Your task to perform on an android device: Open Yahoo.com Image 0: 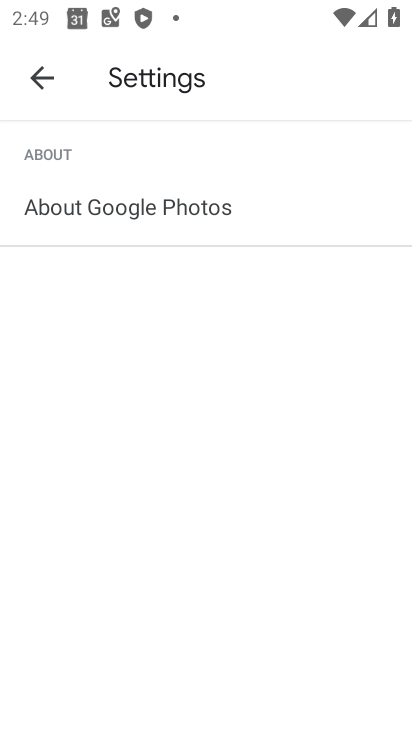
Step 0: press home button
Your task to perform on an android device: Open Yahoo.com Image 1: 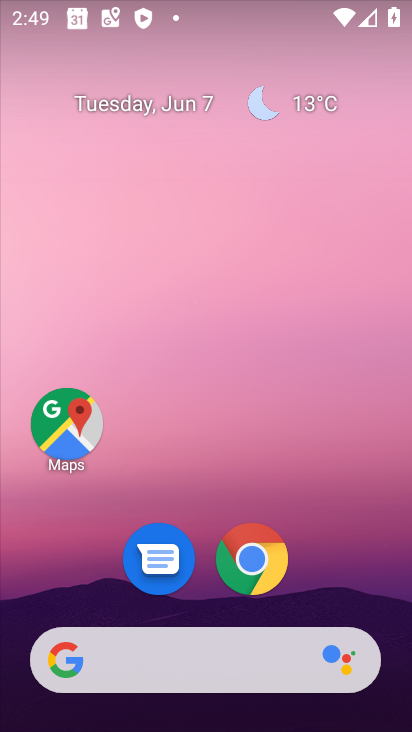
Step 1: click (250, 560)
Your task to perform on an android device: Open Yahoo.com Image 2: 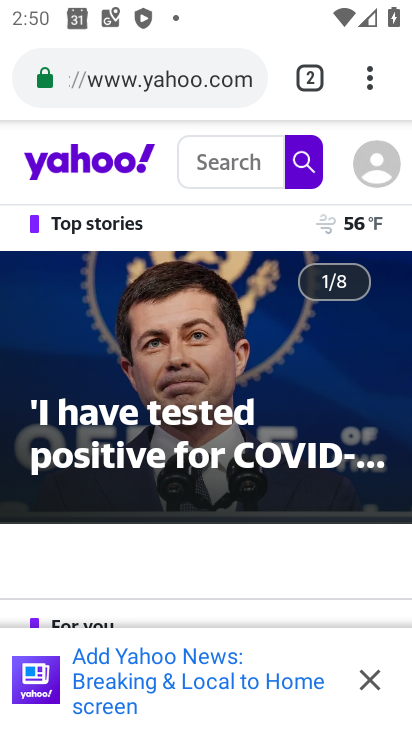
Step 2: task complete